Your task to perform on an android device: Go to location settings Image 0: 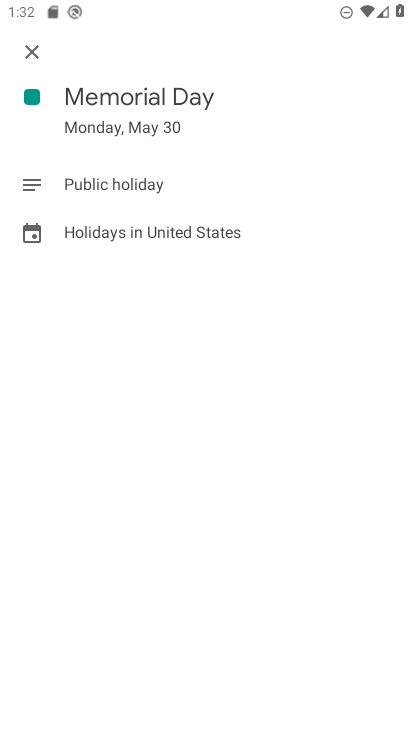
Step 0: press back button
Your task to perform on an android device: Go to location settings Image 1: 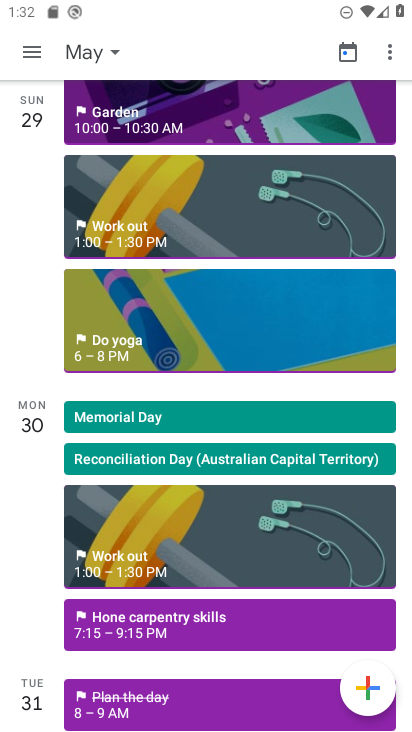
Step 1: press back button
Your task to perform on an android device: Go to location settings Image 2: 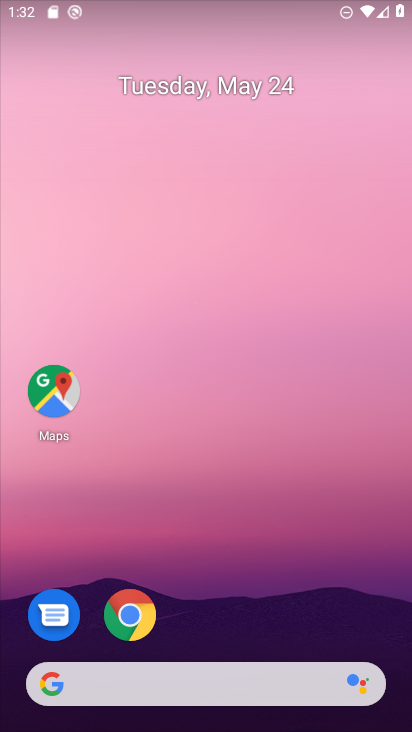
Step 2: drag from (226, 603) to (299, 38)
Your task to perform on an android device: Go to location settings Image 3: 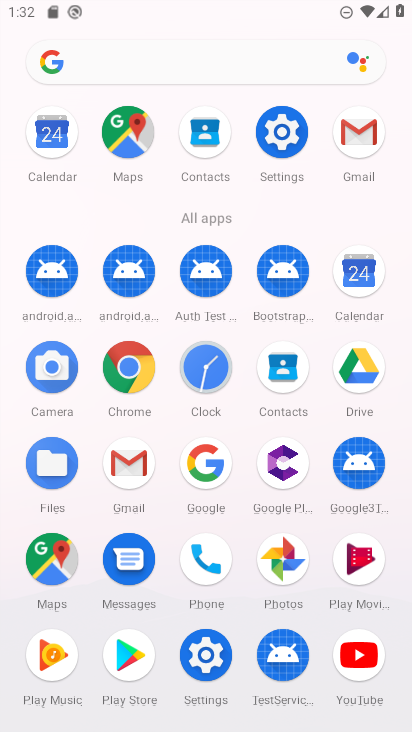
Step 3: click (270, 130)
Your task to perform on an android device: Go to location settings Image 4: 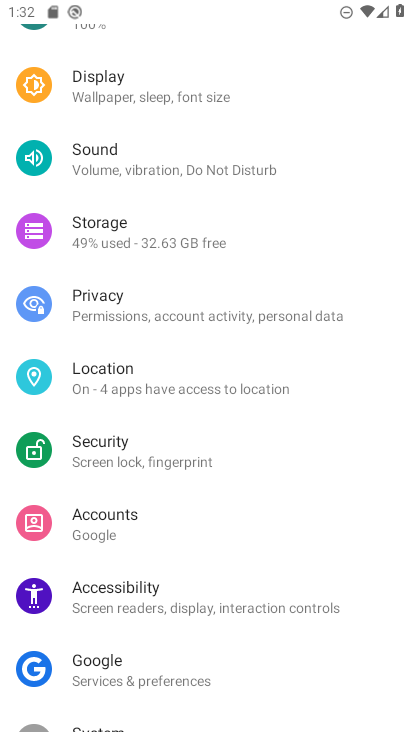
Step 4: click (106, 371)
Your task to perform on an android device: Go to location settings Image 5: 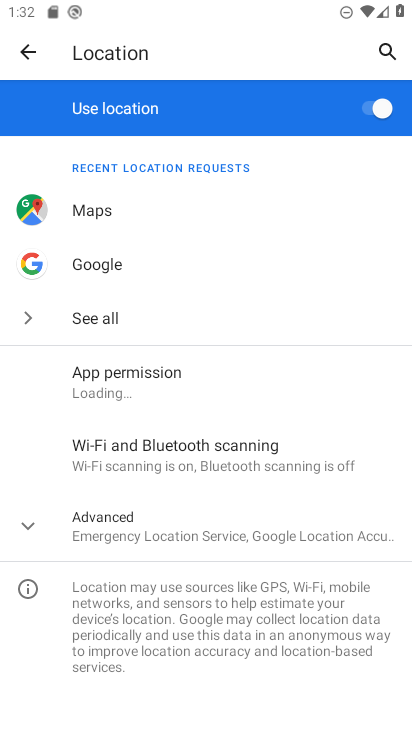
Step 5: task complete